Your task to perform on an android device: see creations saved in the google photos Image 0: 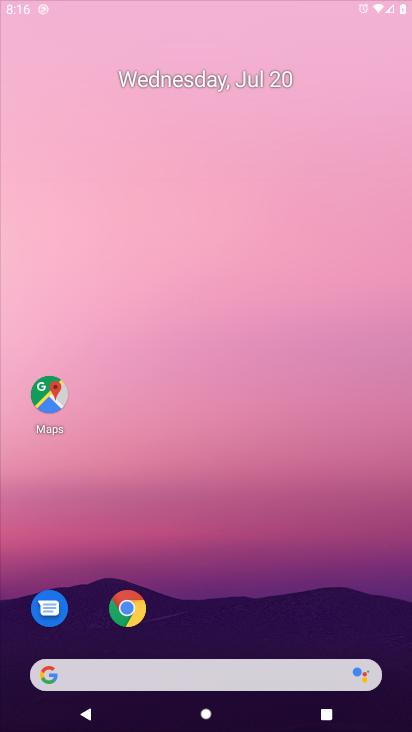
Step 0: click (40, 546)
Your task to perform on an android device: see creations saved in the google photos Image 1: 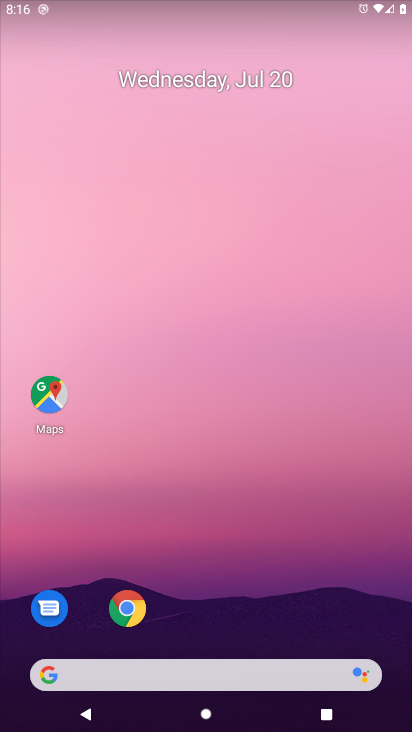
Step 1: drag from (265, 622) to (213, 353)
Your task to perform on an android device: see creations saved in the google photos Image 2: 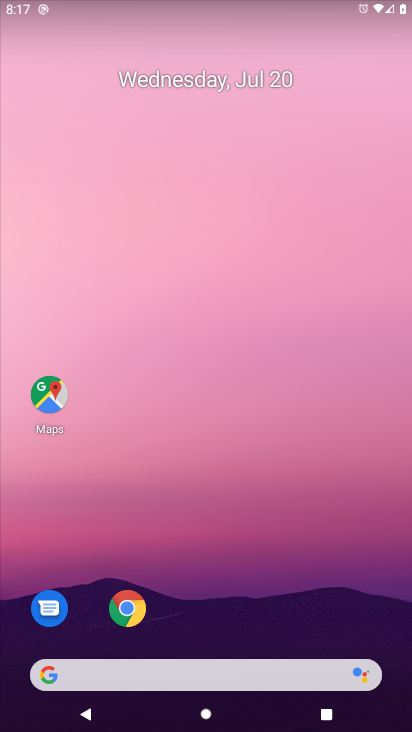
Step 2: drag from (241, 631) to (309, 1)
Your task to perform on an android device: see creations saved in the google photos Image 3: 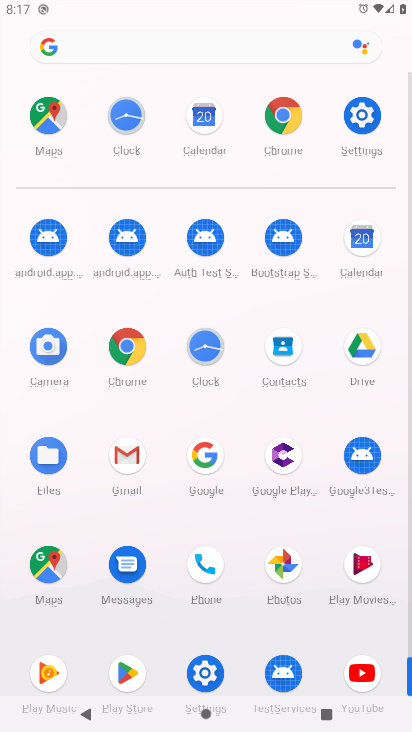
Step 3: click (294, 570)
Your task to perform on an android device: see creations saved in the google photos Image 4: 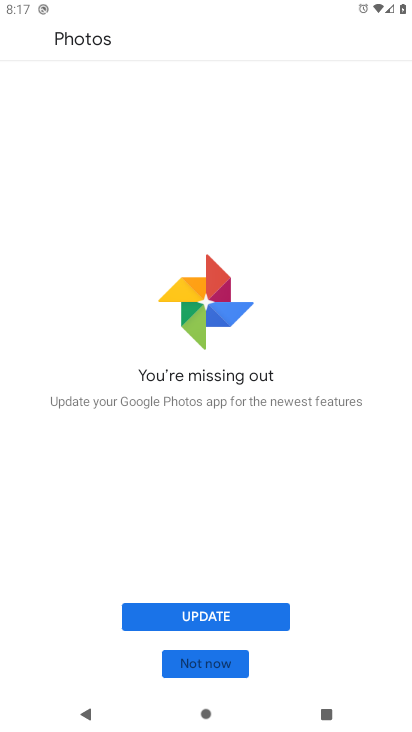
Step 4: click (217, 663)
Your task to perform on an android device: see creations saved in the google photos Image 5: 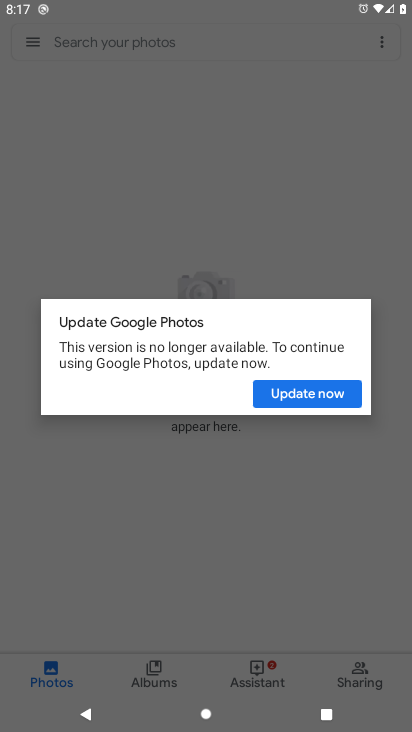
Step 5: click (332, 390)
Your task to perform on an android device: see creations saved in the google photos Image 6: 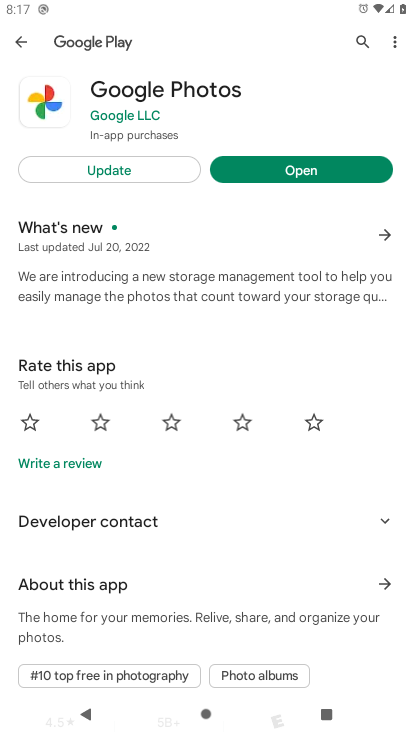
Step 6: click (290, 166)
Your task to perform on an android device: see creations saved in the google photos Image 7: 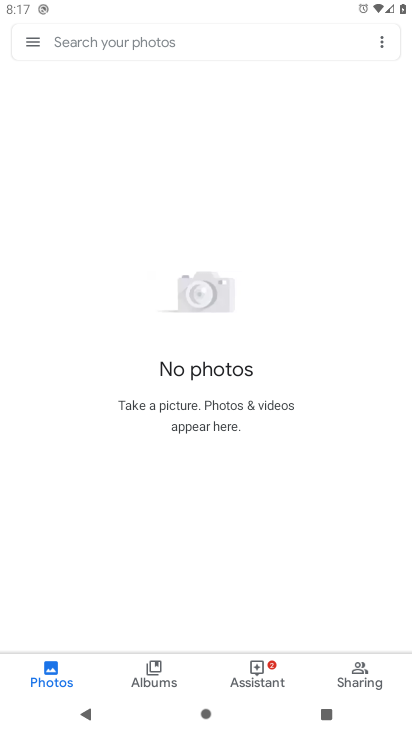
Step 7: click (184, 25)
Your task to perform on an android device: see creations saved in the google photos Image 8: 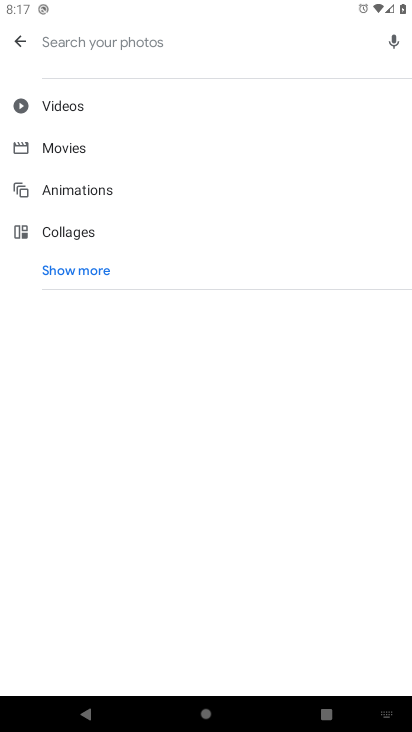
Step 8: type "creations"
Your task to perform on an android device: see creations saved in the google photos Image 9: 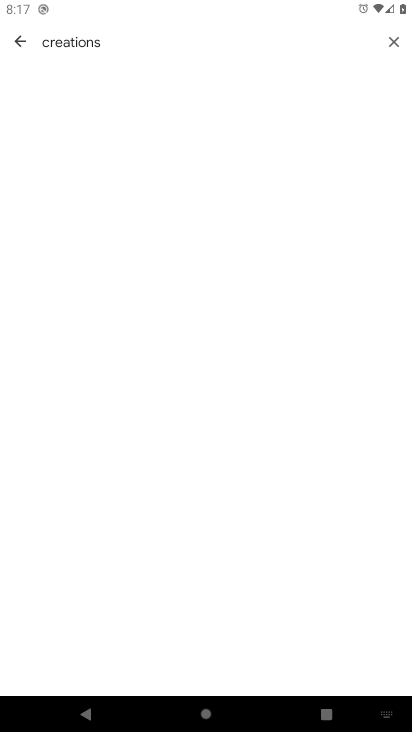
Step 9: task complete